Your task to perform on an android device: stop showing notifications on the lock screen Image 0: 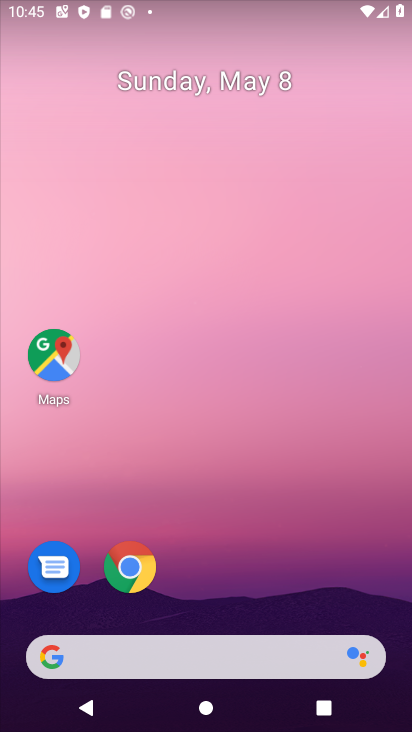
Step 0: drag from (205, 617) to (252, 78)
Your task to perform on an android device: stop showing notifications on the lock screen Image 1: 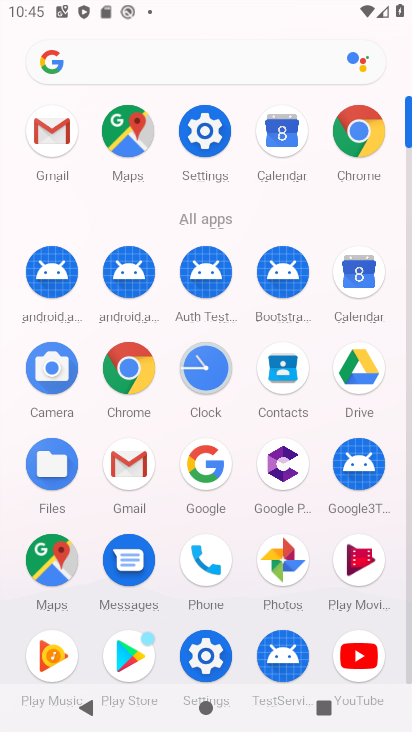
Step 1: click (200, 649)
Your task to perform on an android device: stop showing notifications on the lock screen Image 2: 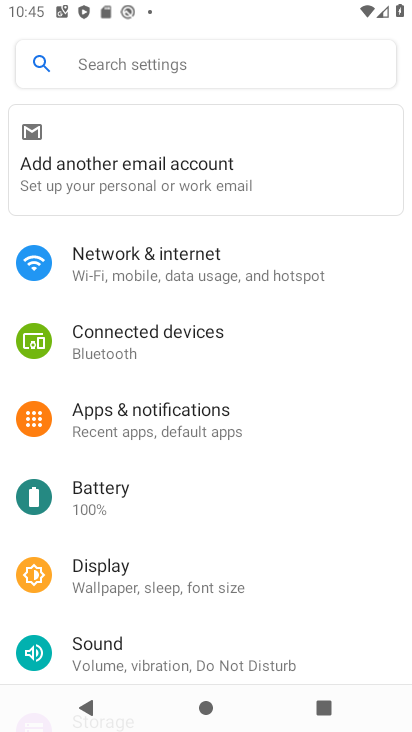
Step 2: click (185, 413)
Your task to perform on an android device: stop showing notifications on the lock screen Image 3: 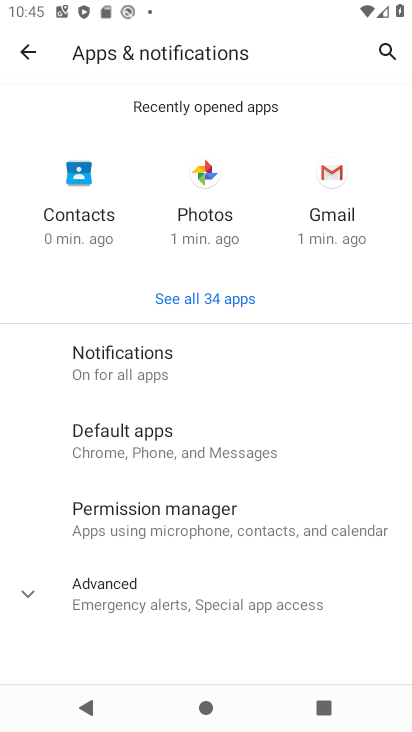
Step 3: click (180, 362)
Your task to perform on an android device: stop showing notifications on the lock screen Image 4: 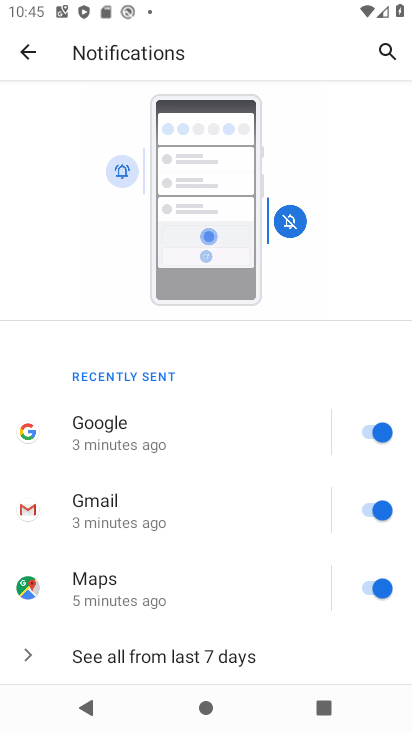
Step 4: drag from (213, 619) to (242, 249)
Your task to perform on an android device: stop showing notifications on the lock screen Image 5: 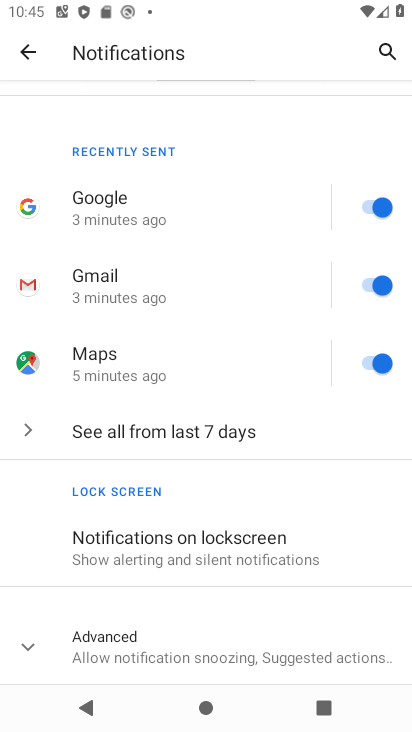
Step 5: click (236, 551)
Your task to perform on an android device: stop showing notifications on the lock screen Image 6: 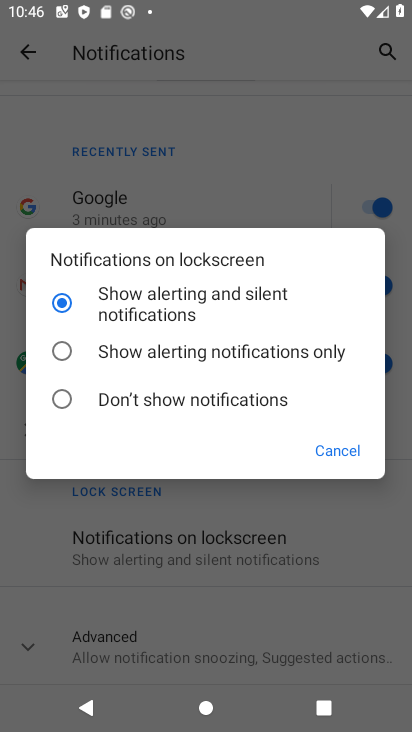
Step 6: click (58, 393)
Your task to perform on an android device: stop showing notifications on the lock screen Image 7: 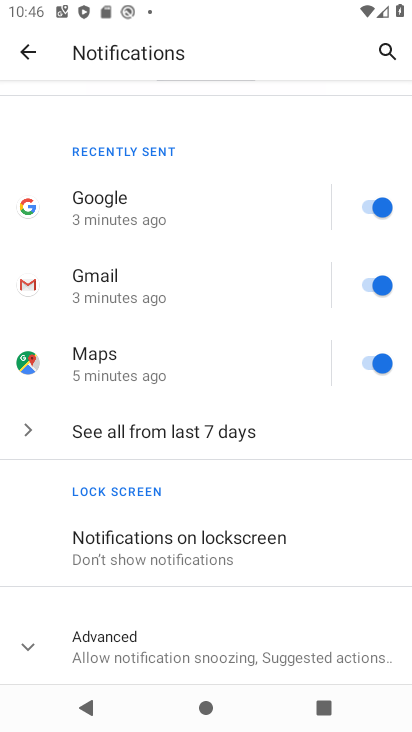
Step 7: task complete